Your task to perform on an android device: turn off improve location accuracy Image 0: 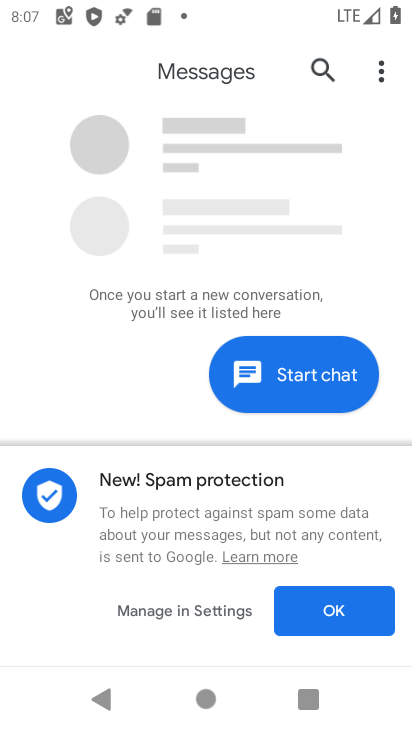
Step 0: press home button
Your task to perform on an android device: turn off improve location accuracy Image 1: 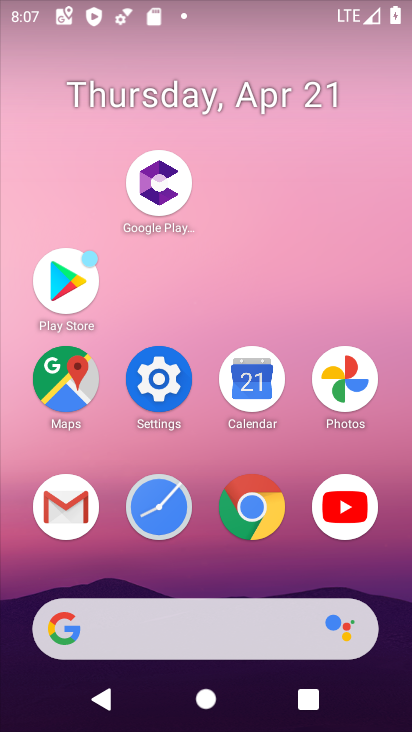
Step 1: click (162, 379)
Your task to perform on an android device: turn off improve location accuracy Image 2: 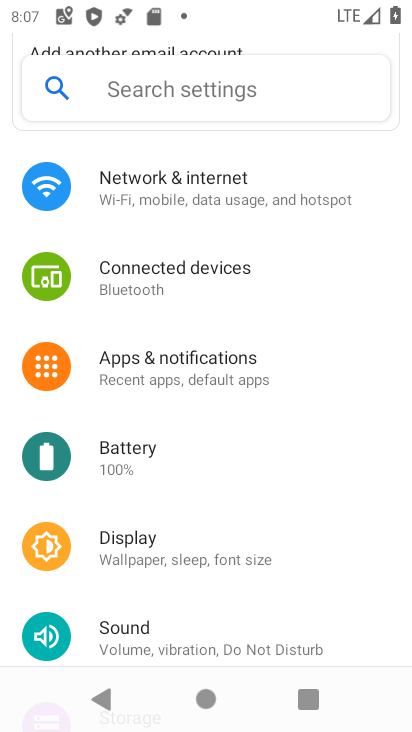
Step 2: drag from (330, 574) to (339, 276)
Your task to perform on an android device: turn off improve location accuracy Image 3: 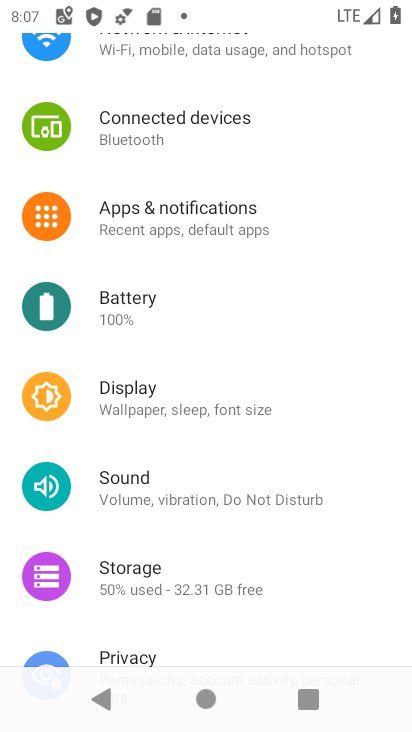
Step 3: drag from (320, 584) to (317, 124)
Your task to perform on an android device: turn off improve location accuracy Image 4: 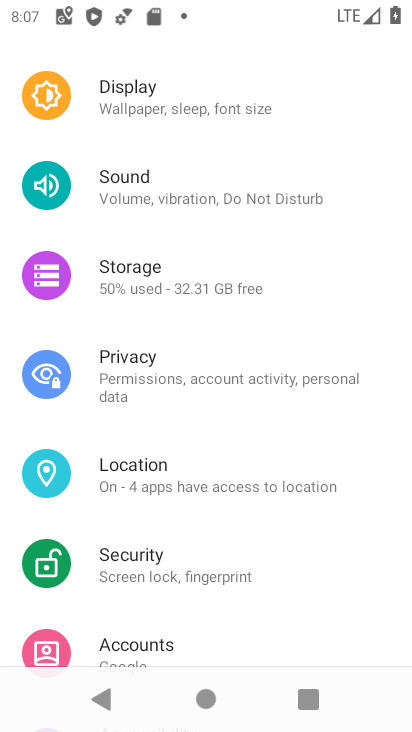
Step 4: click (133, 468)
Your task to perform on an android device: turn off improve location accuracy Image 5: 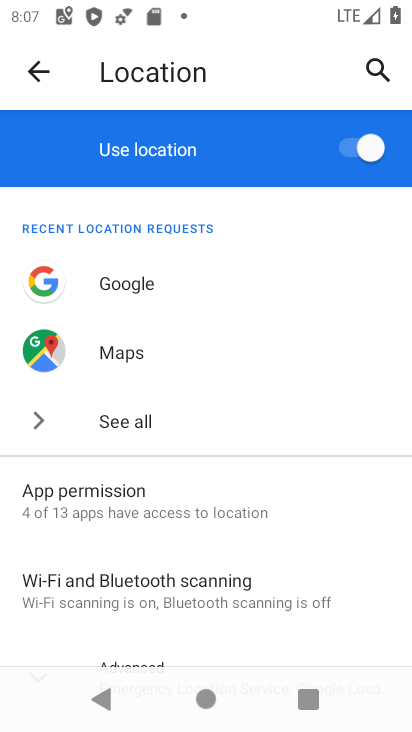
Step 5: drag from (281, 461) to (281, 258)
Your task to perform on an android device: turn off improve location accuracy Image 6: 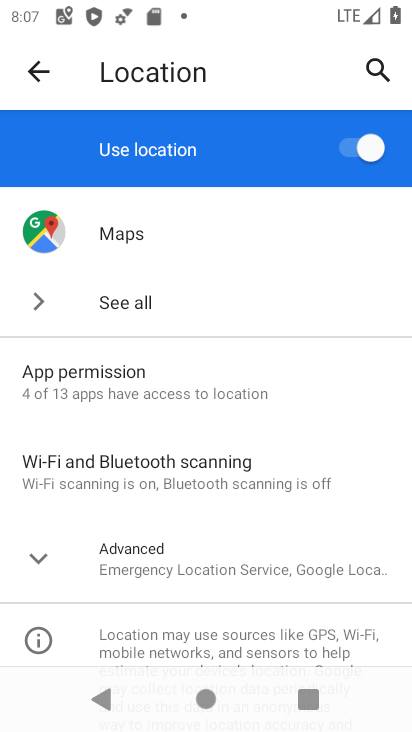
Step 6: click (105, 552)
Your task to perform on an android device: turn off improve location accuracy Image 7: 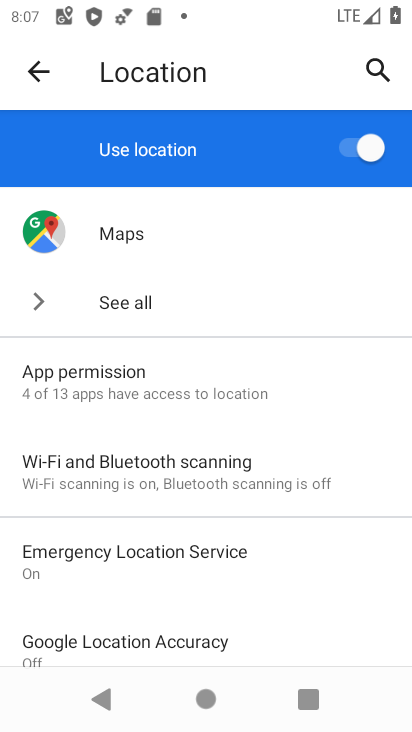
Step 7: drag from (304, 586) to (278, 249)
Your task to perform on an android device: turn off improve location accuracy Image 8: 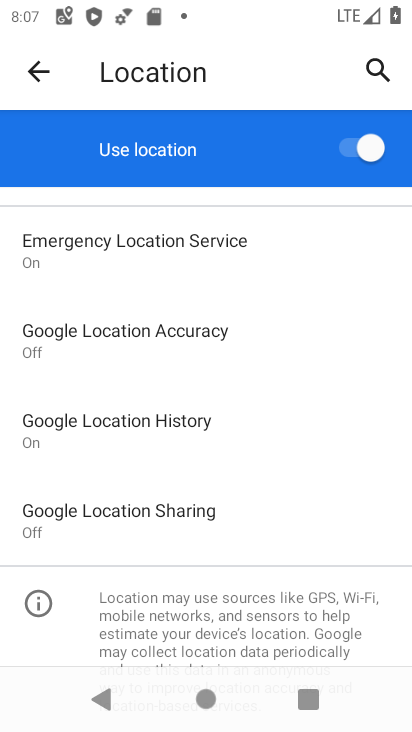
Step 8: click (122, 327)
Your task to perform on an android device: turn off improve location accuracy Image 9: 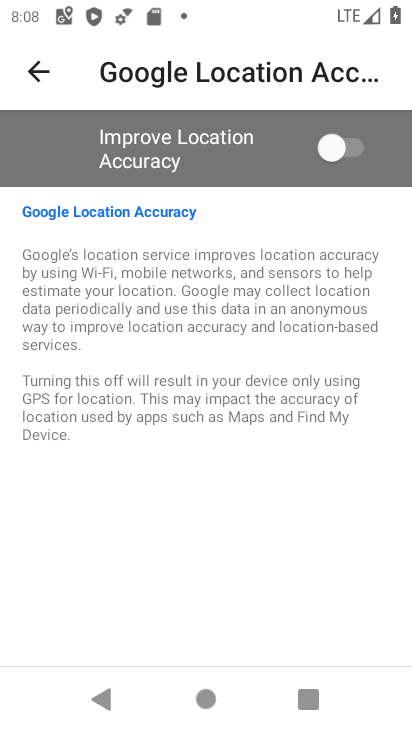
Step 9: task complete